Your task to perform on an android device: Is it going to rain tomorrow? Image 0: 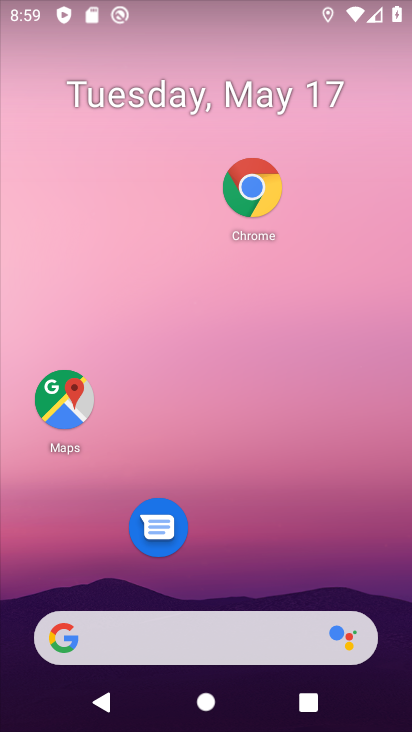
Step 0: click (286, 571)
Your task to perform on an android device: Is it going to rain tomorrow? Image 1: 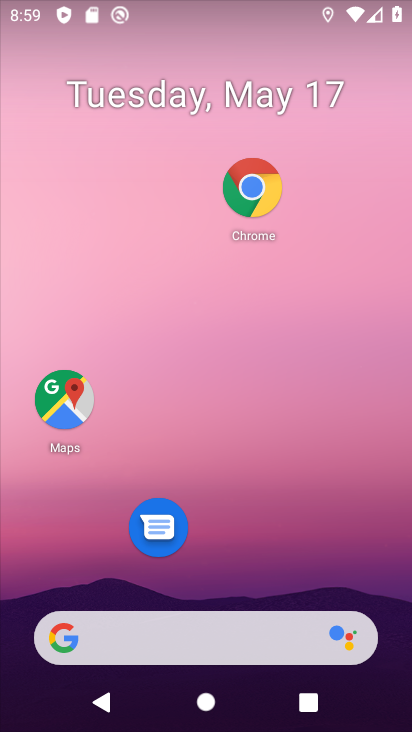
Step 1: click (217, 642)
Your task to perform on an android device: Is it going to rain tomorrow? Image 2: 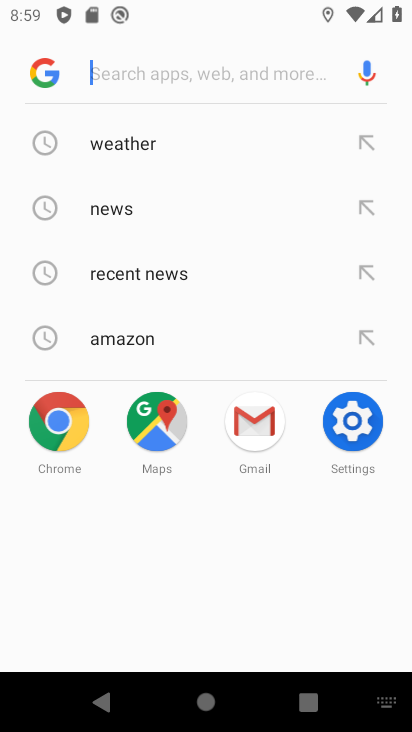
Step 2: click (166, 150)
Your task to perform on an android device: Is it going to rain tomorrow? Image 3: 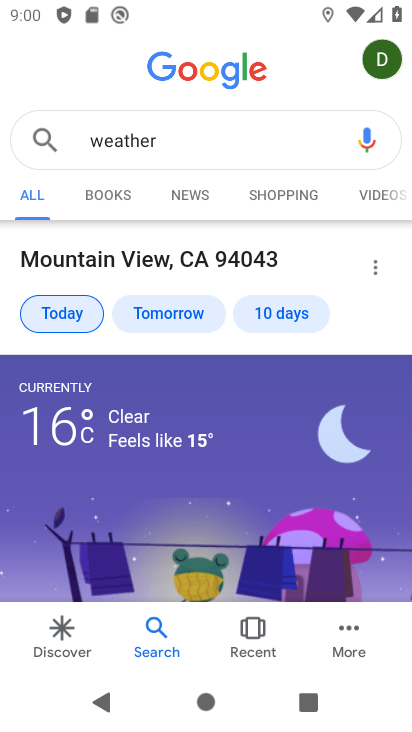
Step 3: click (178, 304)
Your task to perform on an android device: Is it going to rain tomorrow? Image 4: 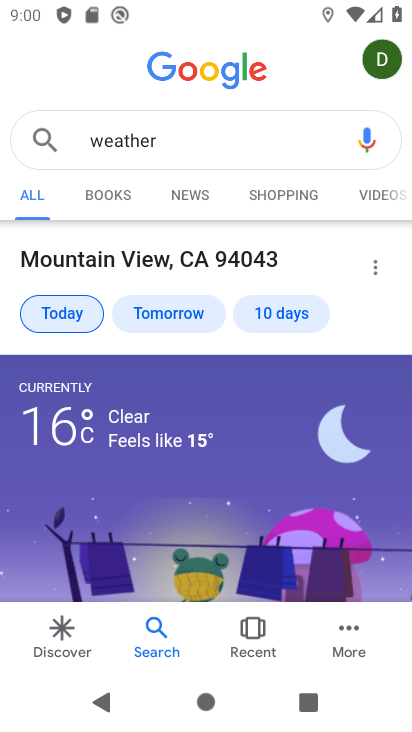
Step 4: click (139, 313)
Your task to perform on an android device: Is it going to rain tomorrow? Image 5: 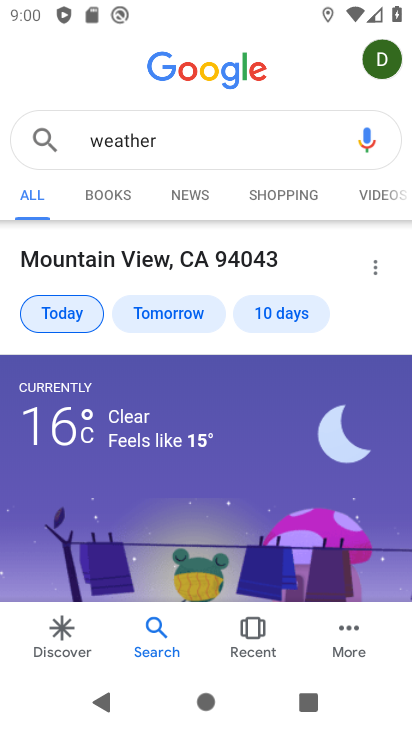
Step 5: task complete